Your task to perform on an android device: turn on notifications settings in the gmail app Image 0: 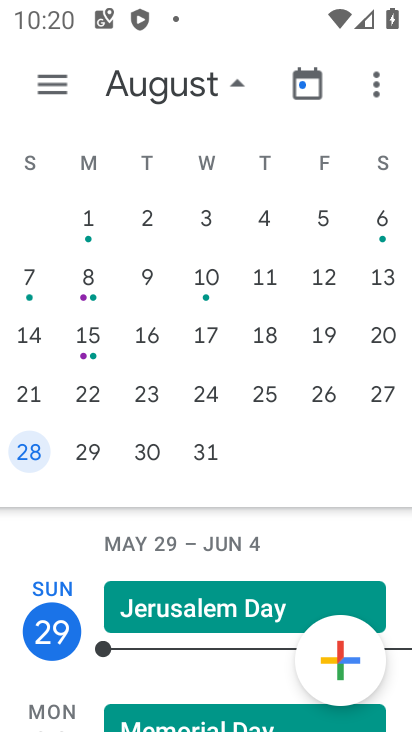
Step 0: press home button
Your task to perform on an android device: turn on notifications settings in the gmail app Image 1: 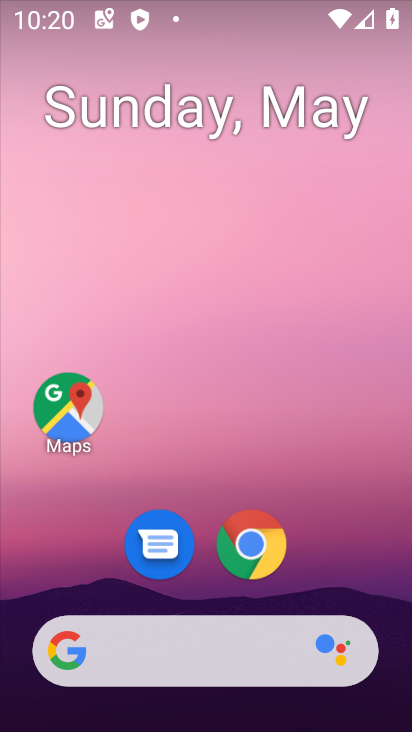
Step 1: drag from (373, 463) to (368, 53)
Your task to perform on an android device: turn on notifications settings in the gmail app Image 2: 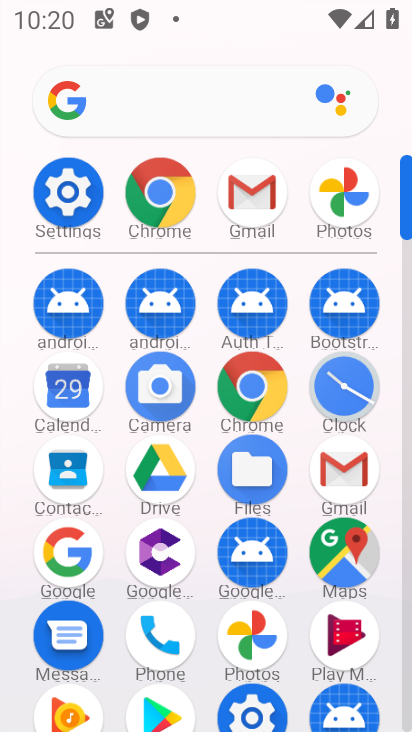
Step 2: click (268, 212)
Your task to perform on an android device: turn on notifications settings in the gmail app Image 3: 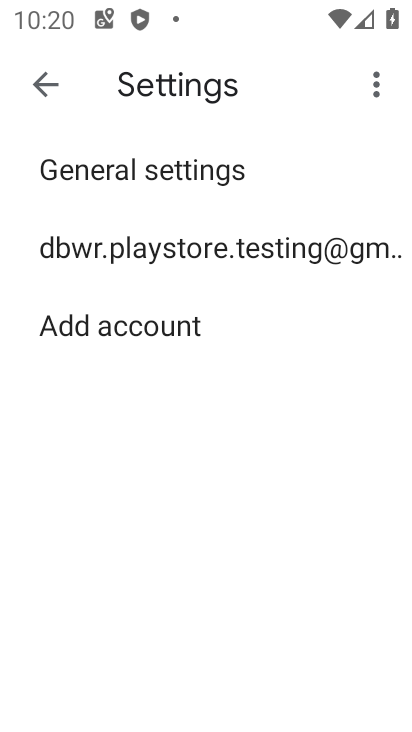
Step 3: click (43, 88)
Your task to perform on an android device: turn on notifications settings in the gmail app Image 4: 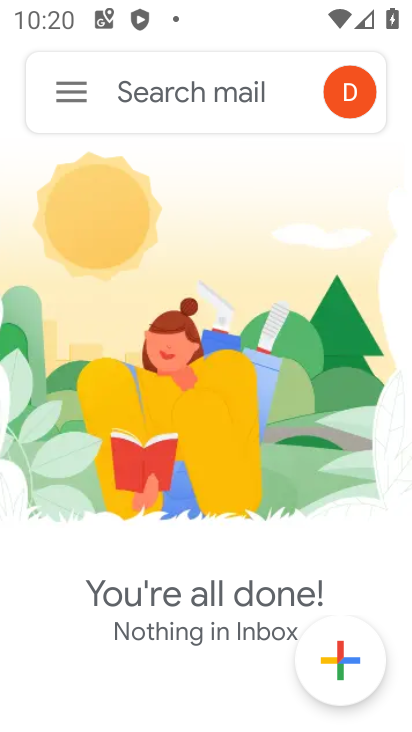
Step 4: click (44, 86)
Your task to perform on an android device: turn on notifications settings in the gmail app Image 5: 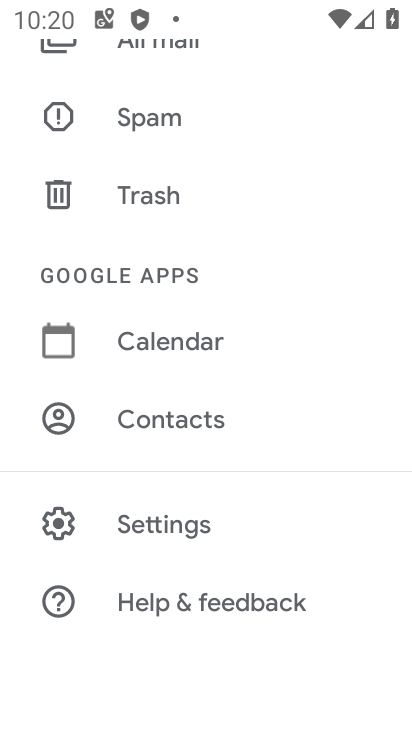
Step 5: click (135, 519)
Your task to perform on an android device: turn on notifications settings in the gmail app Image 6: 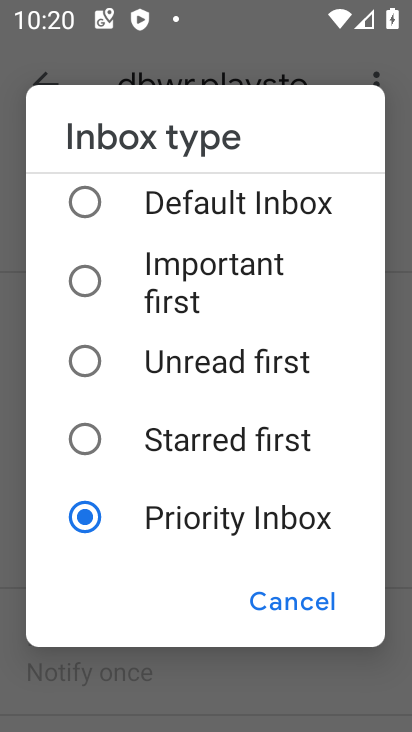
Step 6: click (302, 602)
Your task to perform on an android device: turn on notifications settings in the gmail app Image 7: 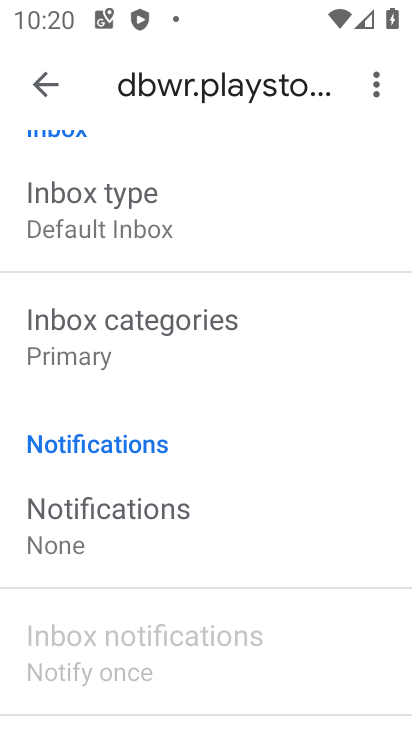
Step 7: click (121, 512)
Your task to perform on an android device: turn on notifications settings in the gmail app Image 8: 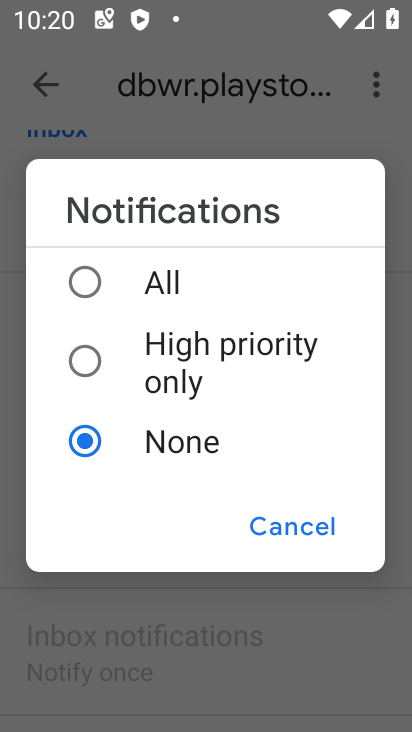
Step 8: click (100, 304)
Your task to perform on an android device: turn on notifications settings in the gmail app Image 9: 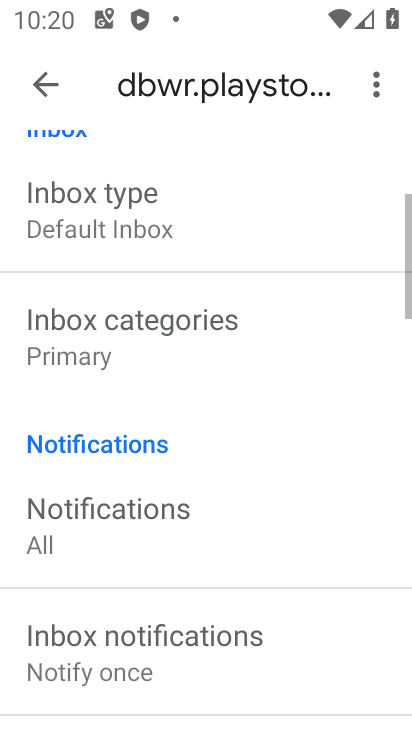
Step 9: task complete